Your task to perform on an android device: Clear the cart on ebay.com. Search for dell alienware on ebay.com, select the first entry, add it to the cart, then select checkout. Image 0: 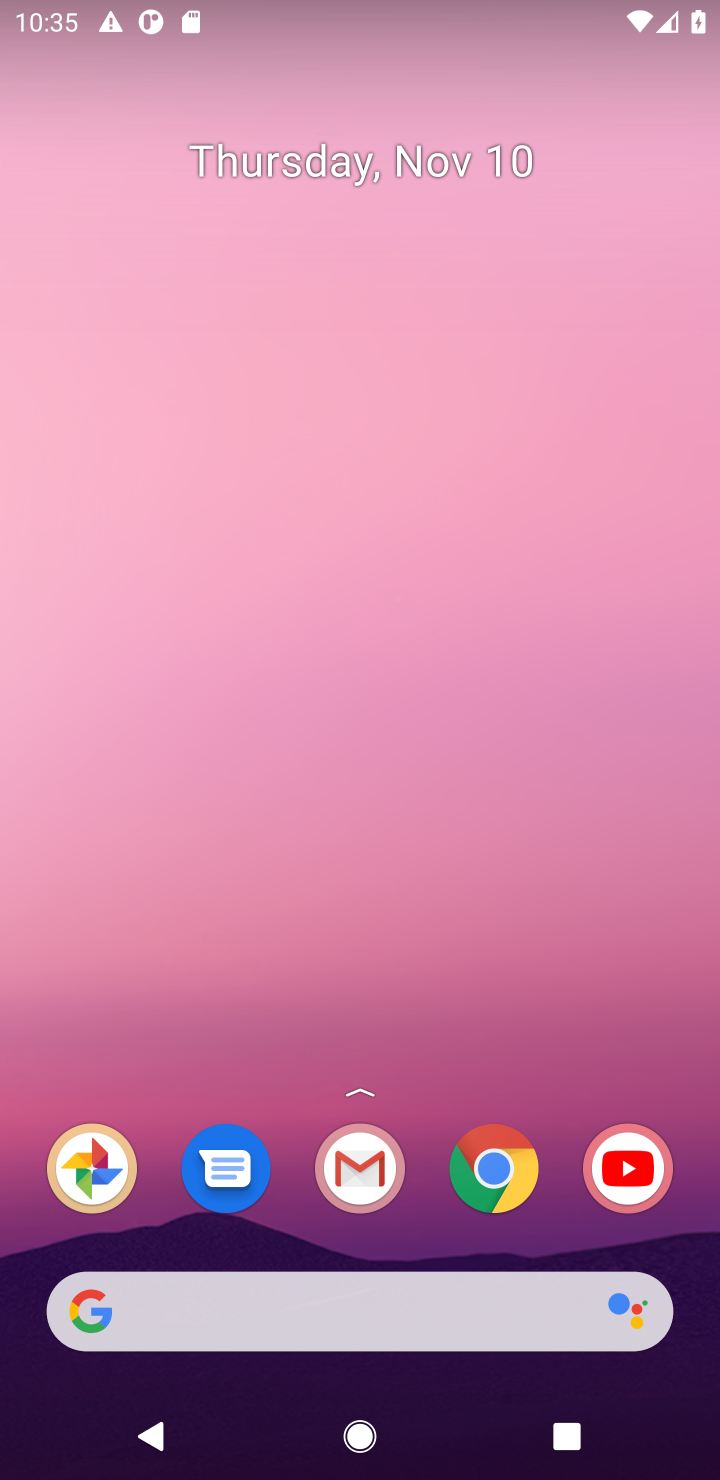
Step 0: click (492, 1190)
Your task to perform on an android device: Clear the cart on ebay.com. Search for dell alienware on ebay.com, select the first entry, add it to the cart, then select checkout. Image 1: 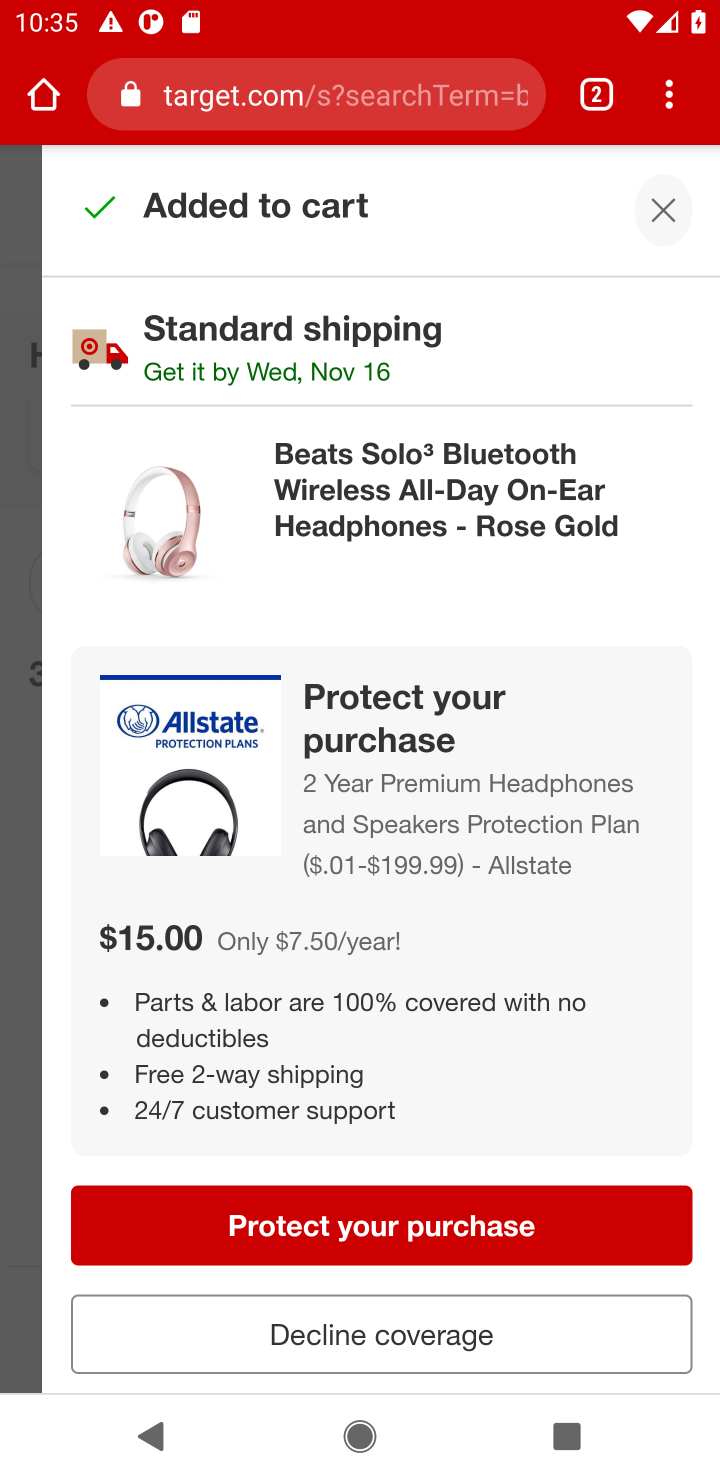
Step 1: click (286, 100)
Your task to perform on an android device: Clear the cart on ebay.com. Search for dell alienware on ebay.com, select the first entry, add it to the cart, then select checkout. Image 2: 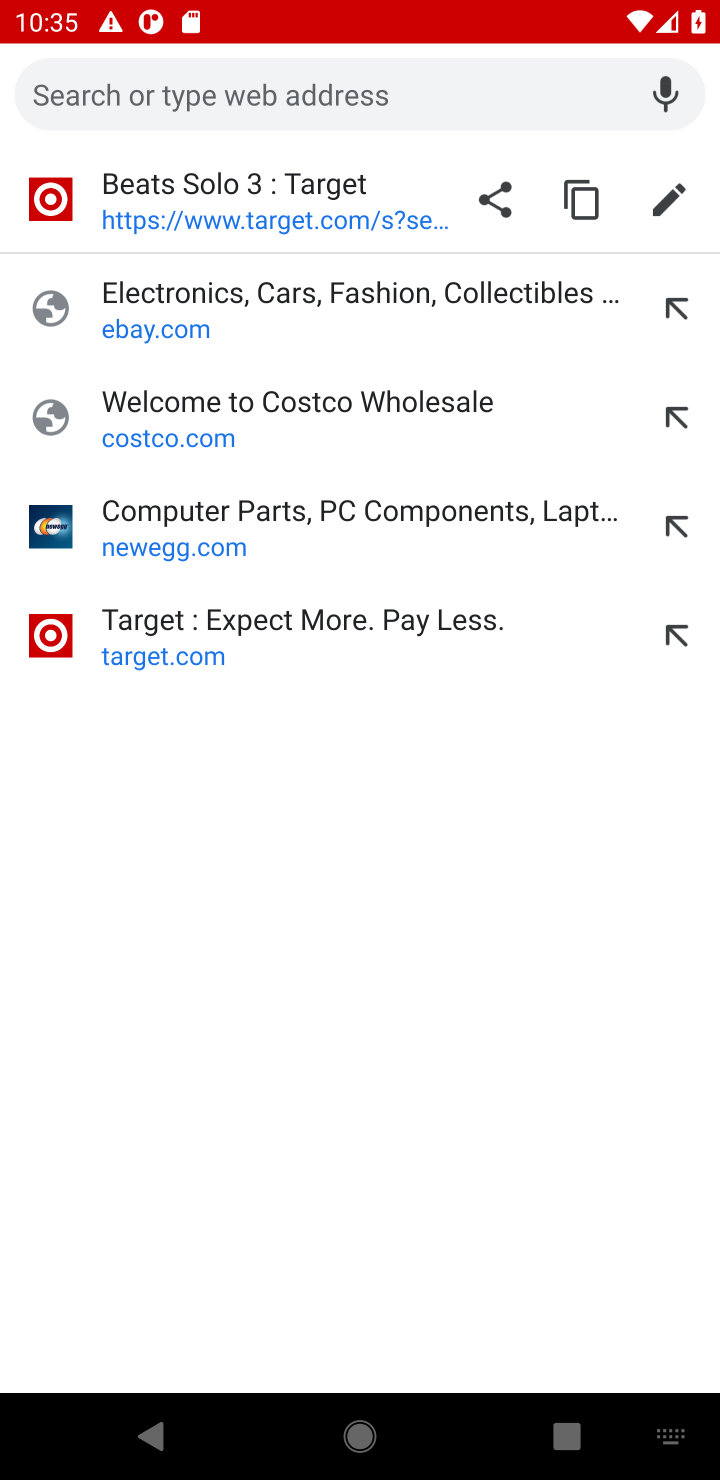
Step 2: click (178, 316)
Your task to perform on an android device: Clear the cart on ebay.com. Search for dell alienware on ebay.com, select the first entry, add it to the cart, then select checkout. Image 3: 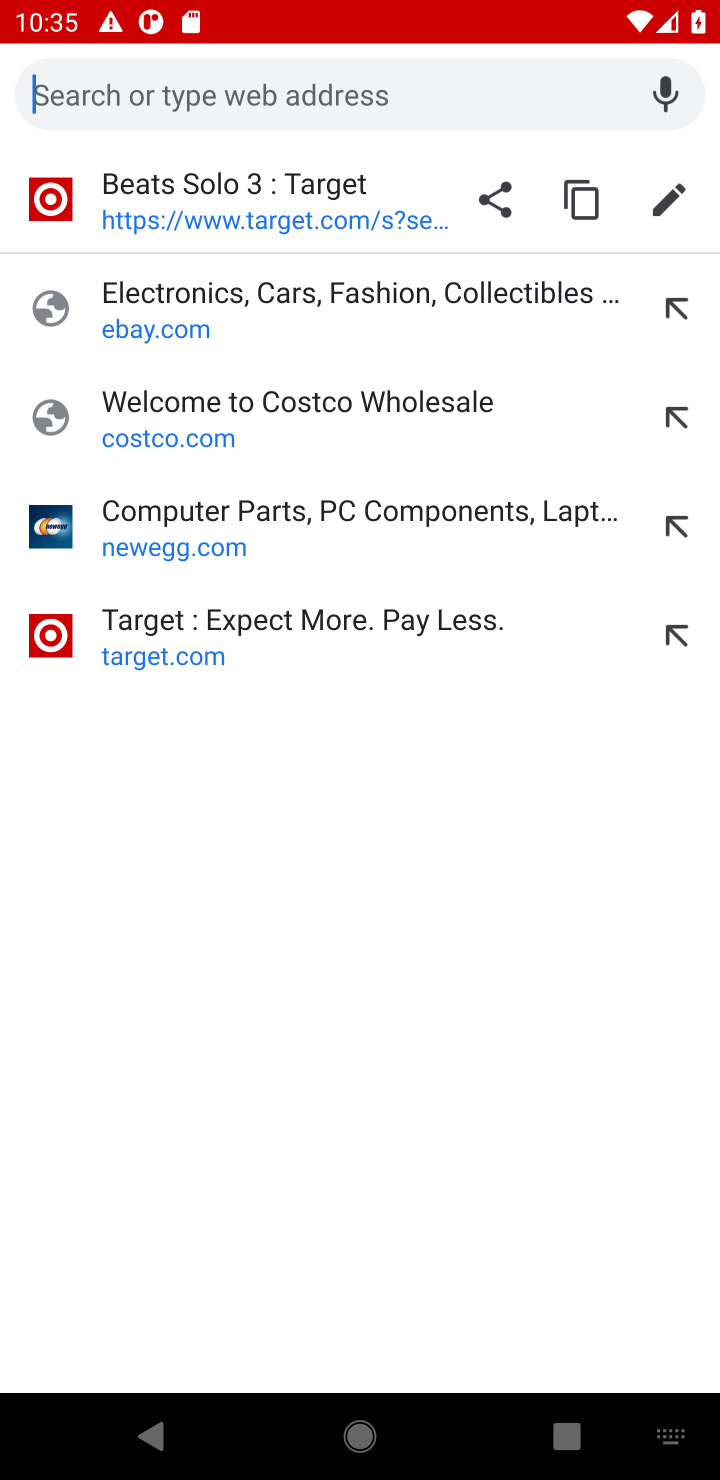
Step 3: click (128, 314)
Your task to perform on an android device: Clear the cart on ebay.com. Search for dell alienware on ebay.com, select the first entry, add it to the cart, then select checkout. Image 4: 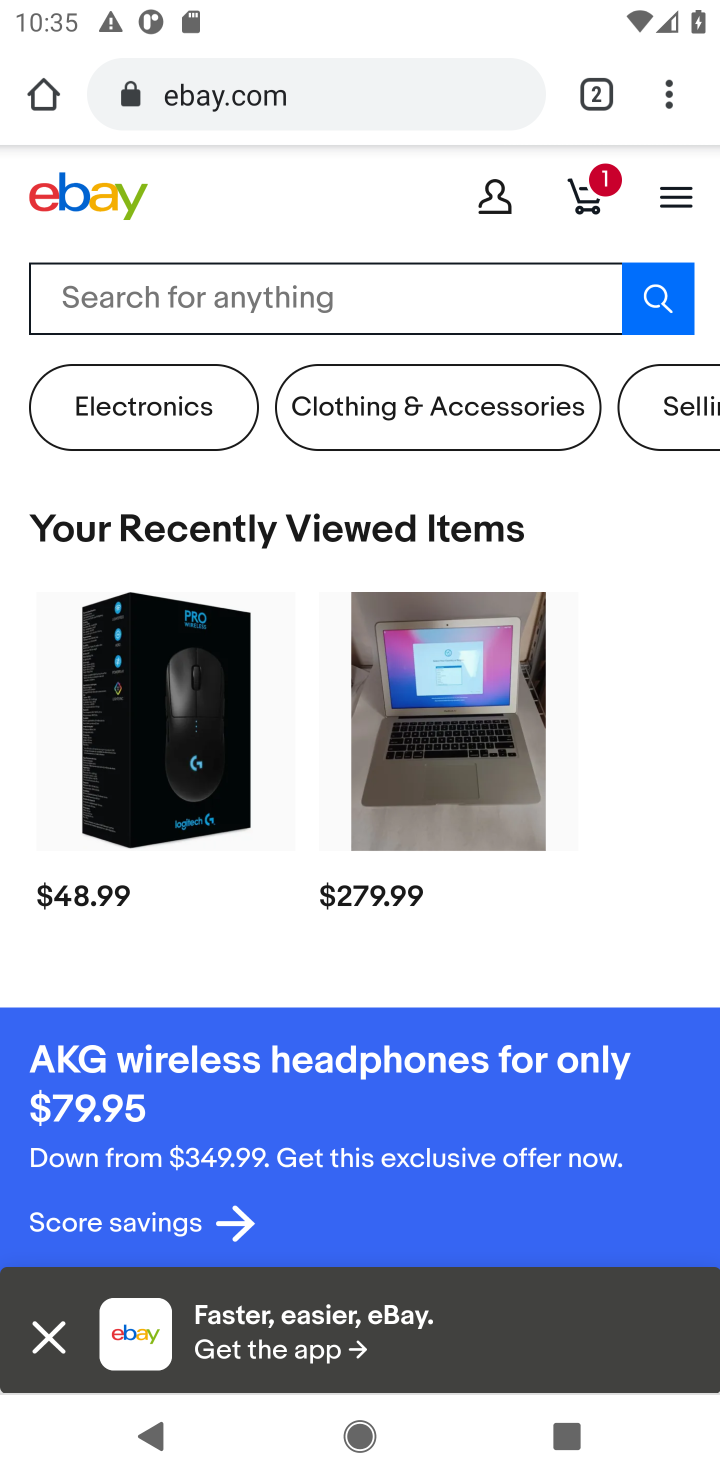
Step 4: click (584, 192)
Your task to perform on an android device: Clear the cart on ebay.com. Search for dell alienware on ebay.com, select the first entry, add it to the cart, then select checkout. Image 5: 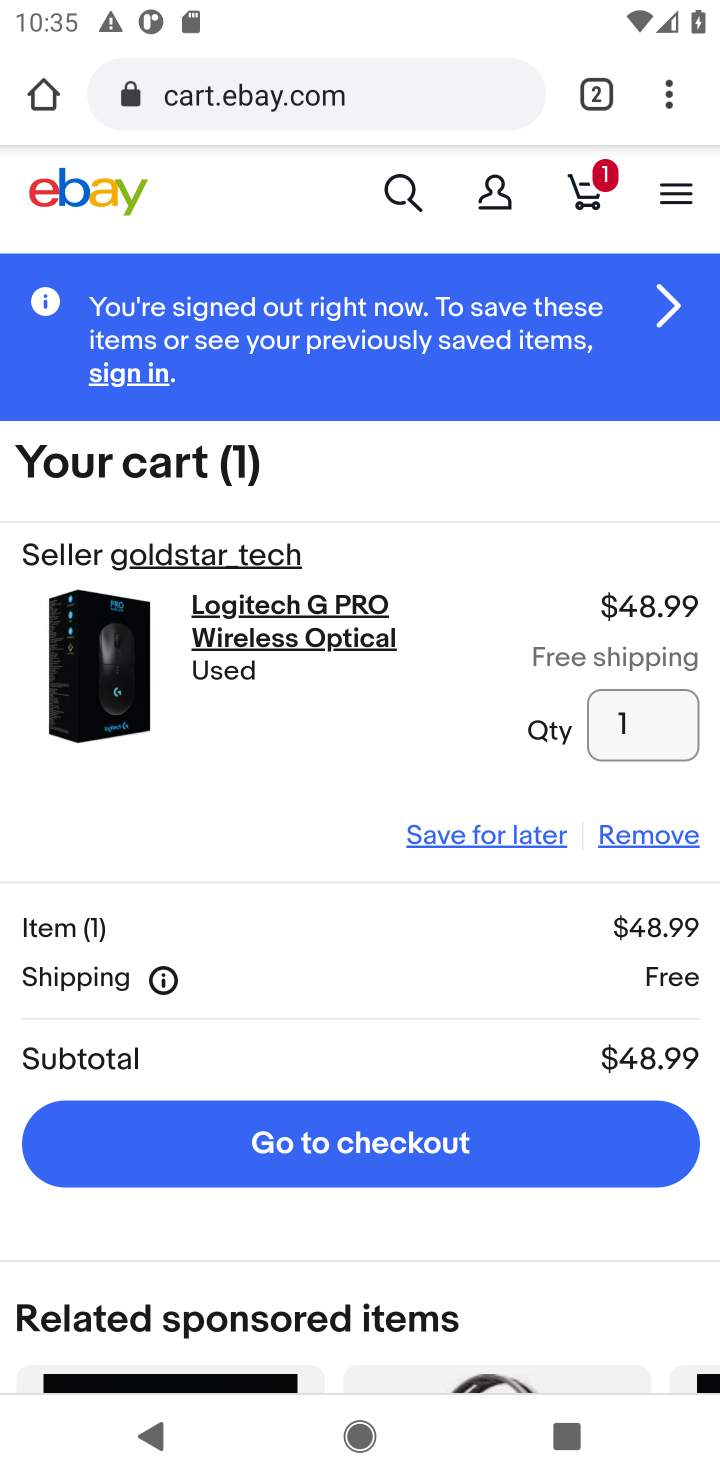
Step 5: click (645, 830)
Your task to perform on an android device: Clear the cart on ebay.com. Search for dell alienware on ebay.com, select the first entry, add it to the cart, then select checkout. Image 6: 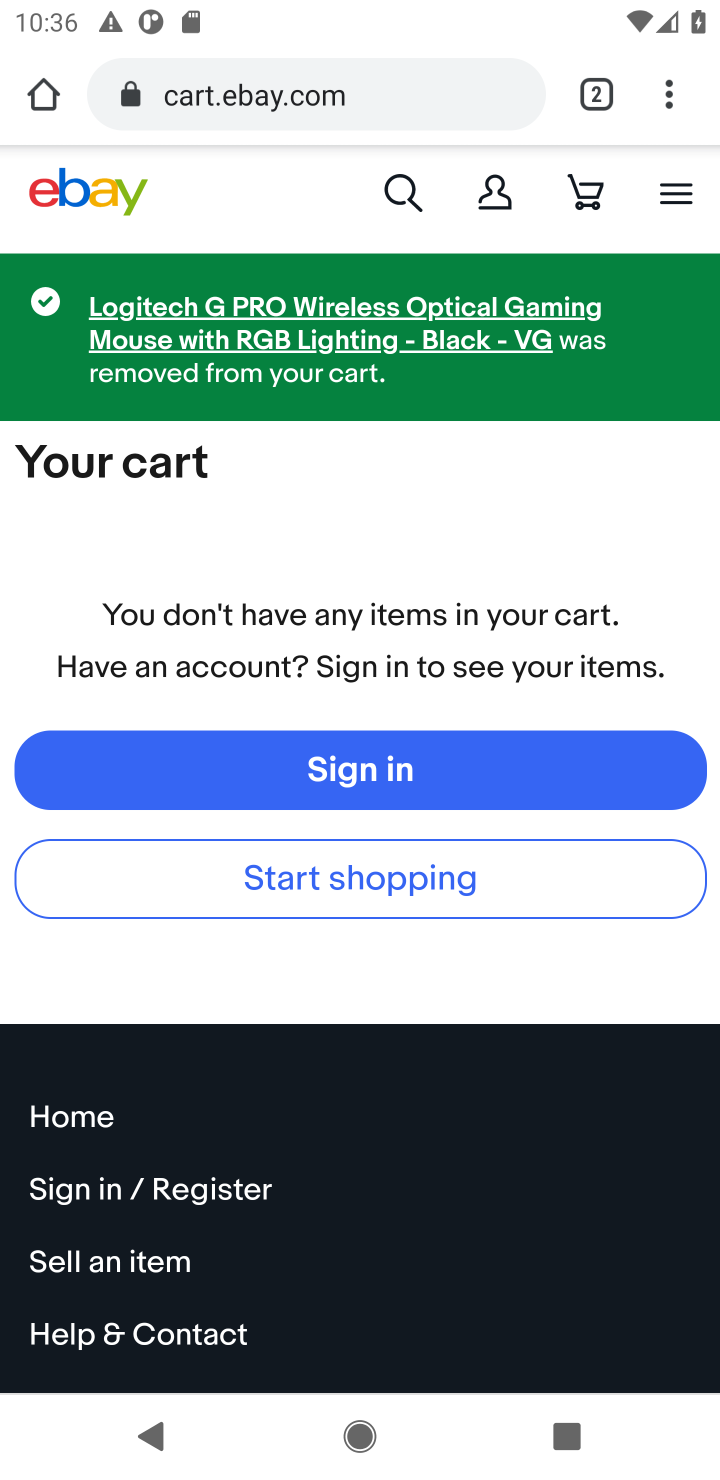
Step 6: click (385, 201)
Your task to perform on an android device: Clear the cart on ebay.com. Search for dell alienware on ebay.com, select the first entry, add it to the cart, then select checkout. Image 7: 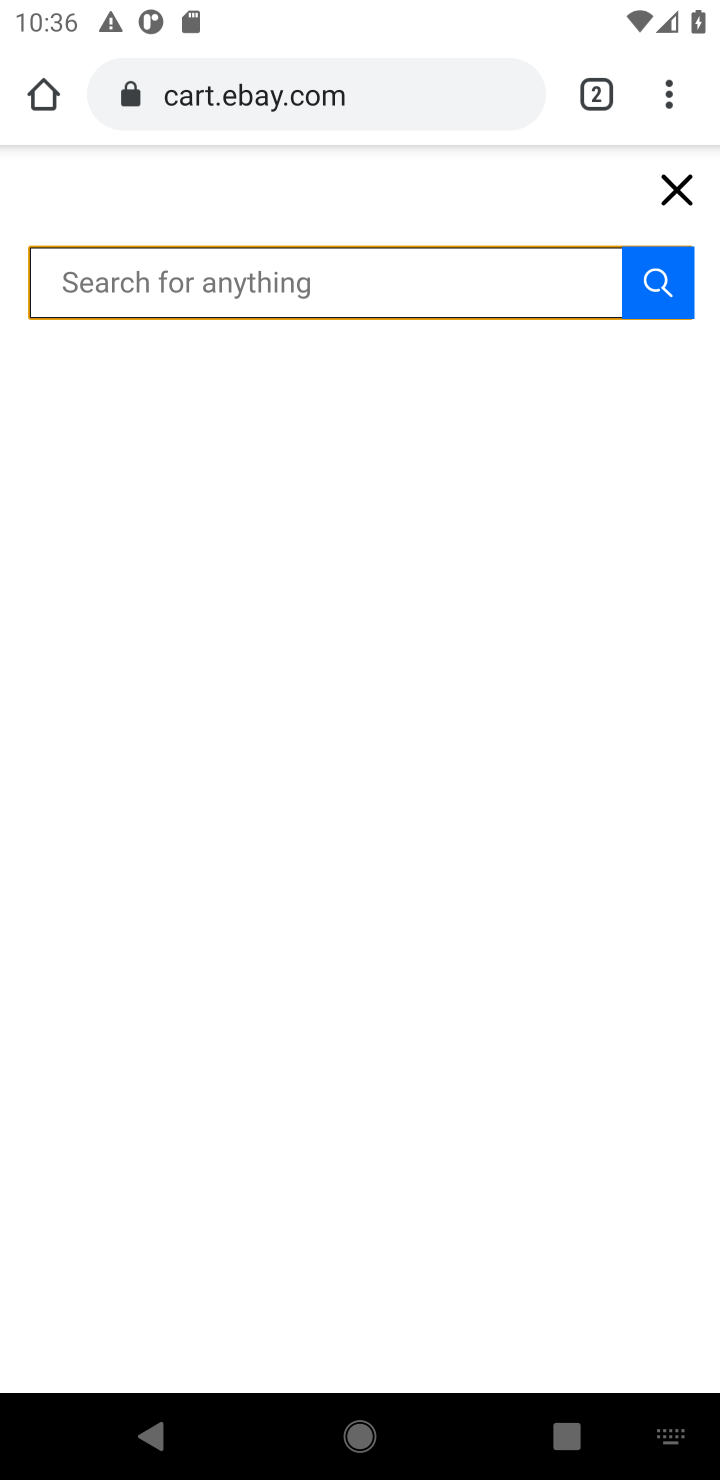
Step 7: type "dell alienware"
Your task to perform on an android device: Clear the cart on ebay.com. Search for dell alienware on ebay.com, select the first entry, add it to the cart, then select checkout. Image 8: 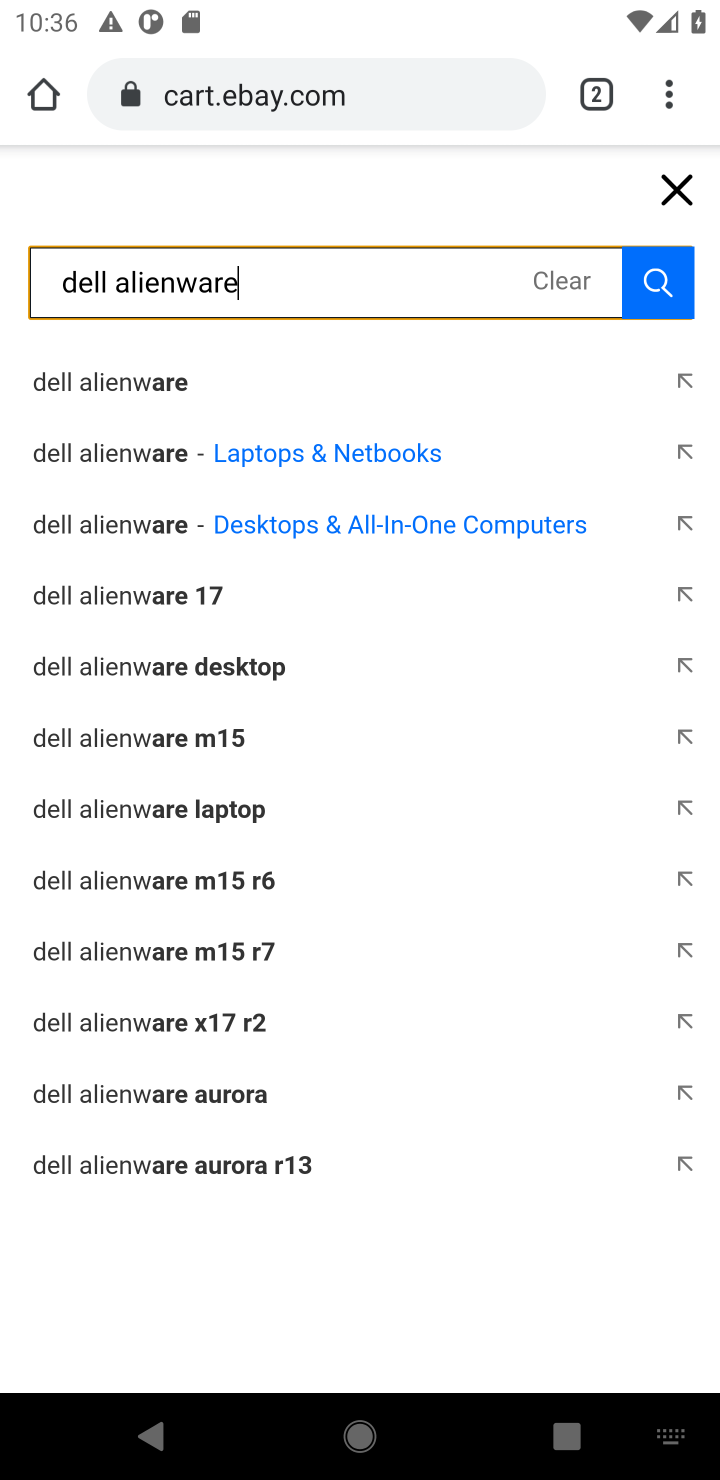
Step 8: click (146, 377)
Your task to perform on an android device: Clear the cart on ebay.com. Search for dell alienware on ebay.com, select the first entry, add it to the cart, then select checkout. Image 9: 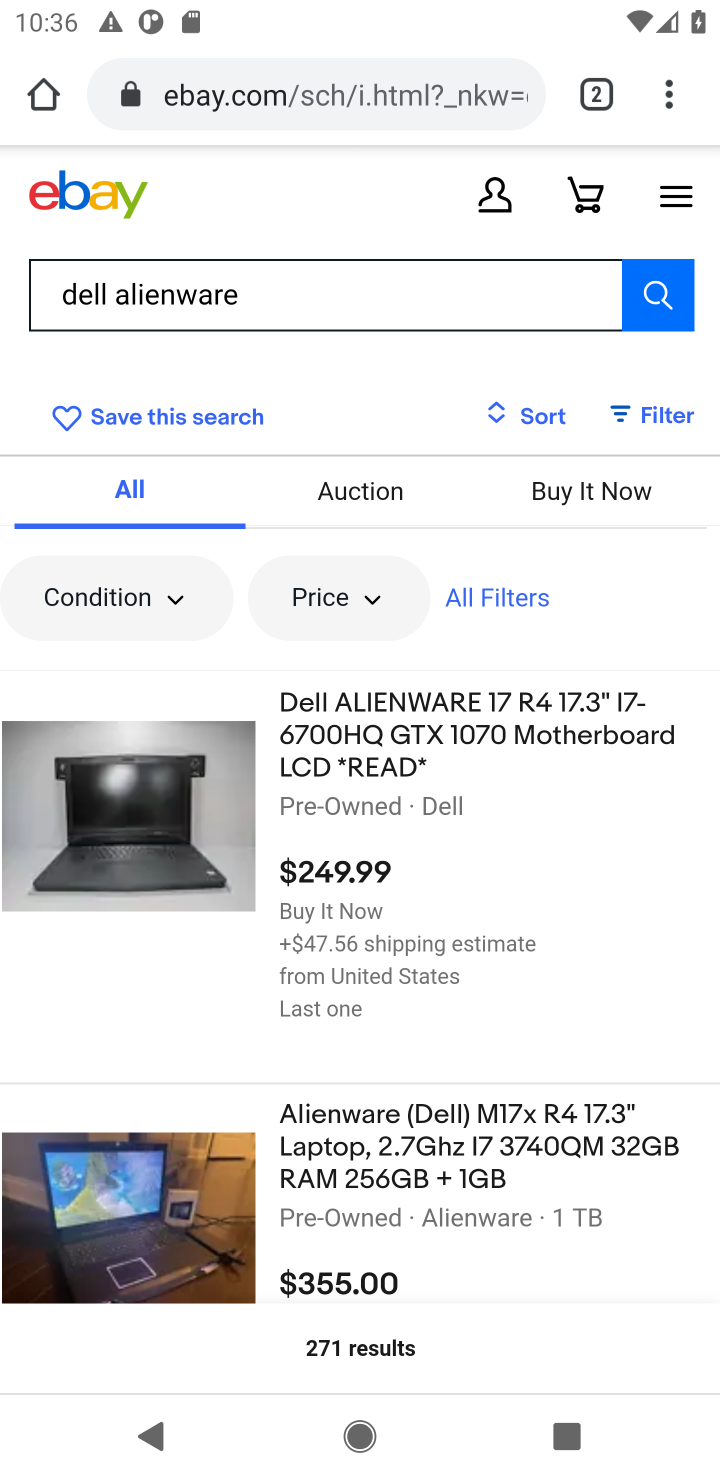
Step 9: click (163, 822)
Your task to perform on an android device: Clear the cart on ebay.com. Search for dell alienware on ebay.com, select the first entry, add it to the cart, then select checkout. Image 10: 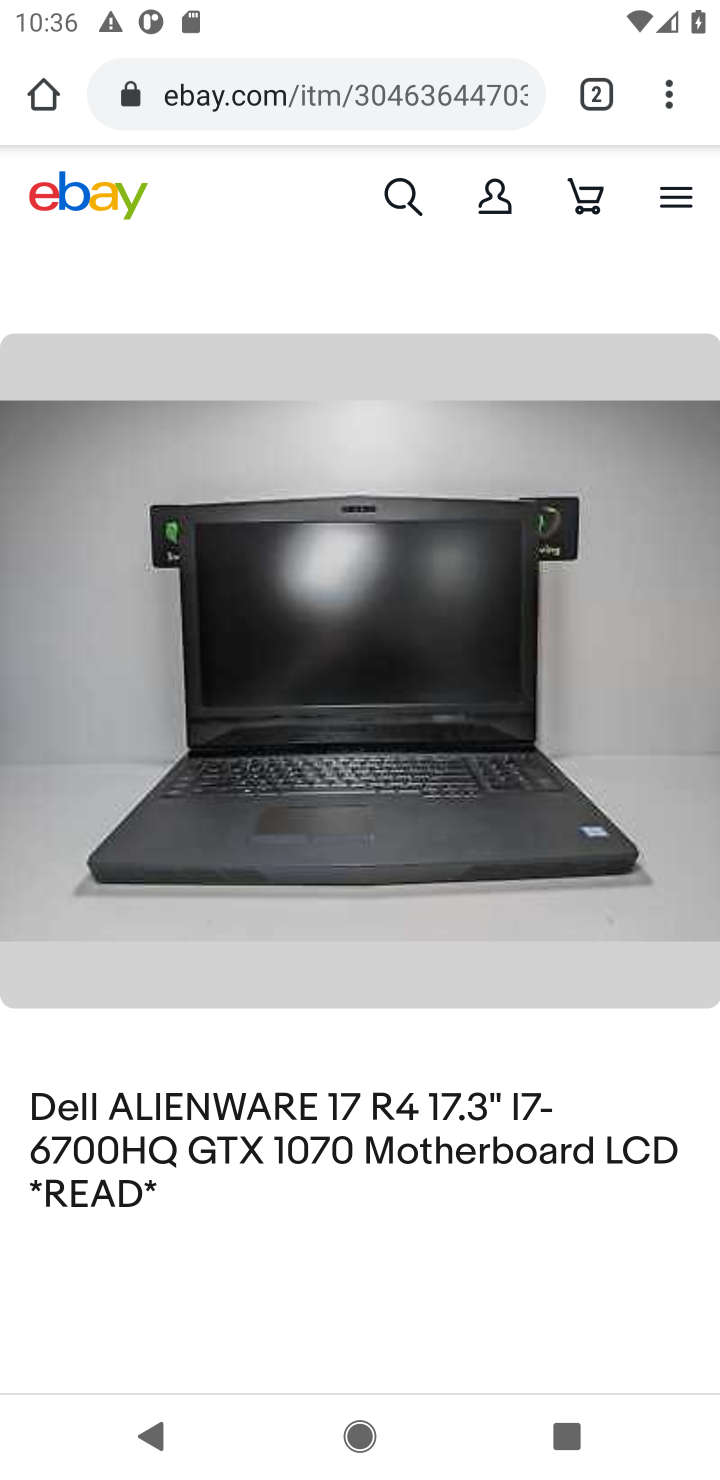
Step 10: drag from (349, 1154) to (371, 466)
Your task to perform on an android device: Clear the cart on ebay.com. Search for dell alienware on ebay.com, select the first entry, add it to the cart, then select checkout. Image 11: 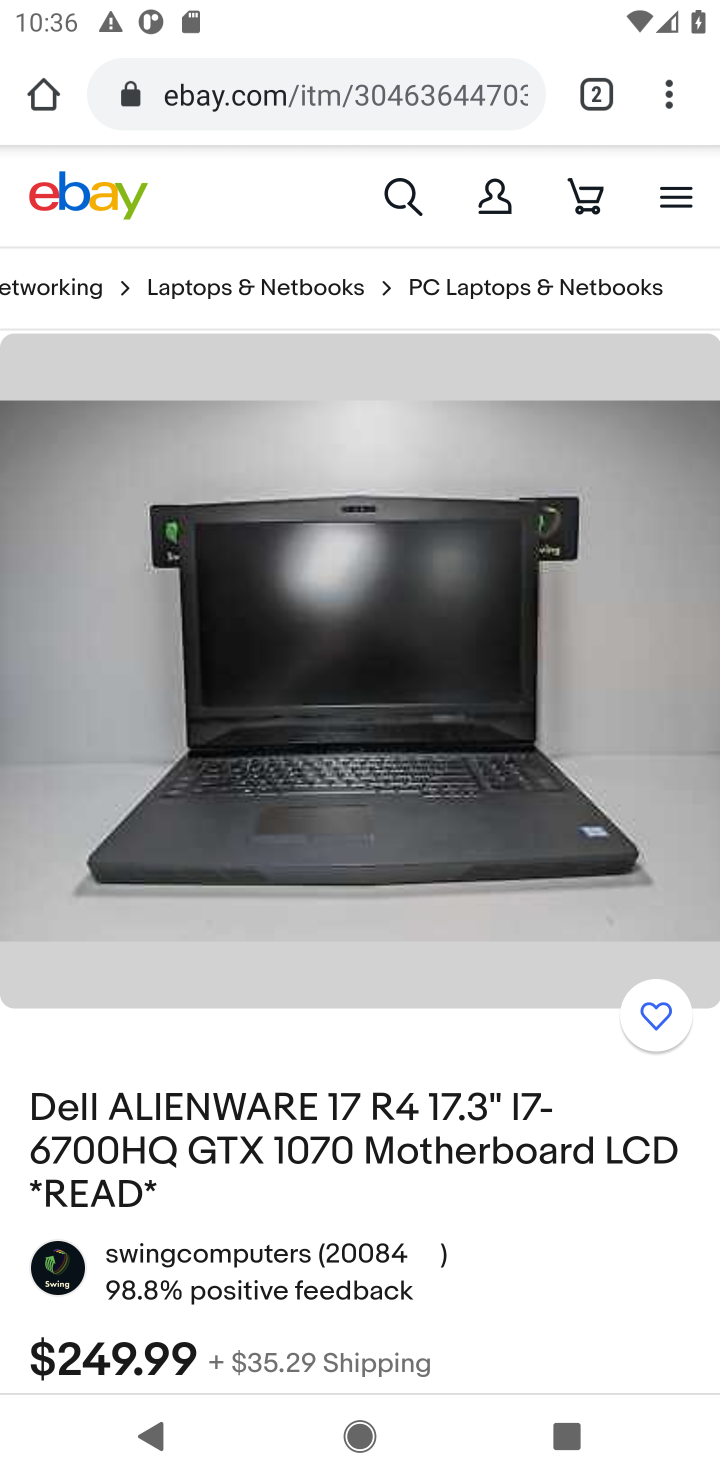
Step 11: drag from (340, 904) to (371, 450)
Your task to perform on an android device: Clear the cart on ebay.com. Search for dell alienware on ebay.com, select the first entry, add it to the cart, then select checkout. Image 12: 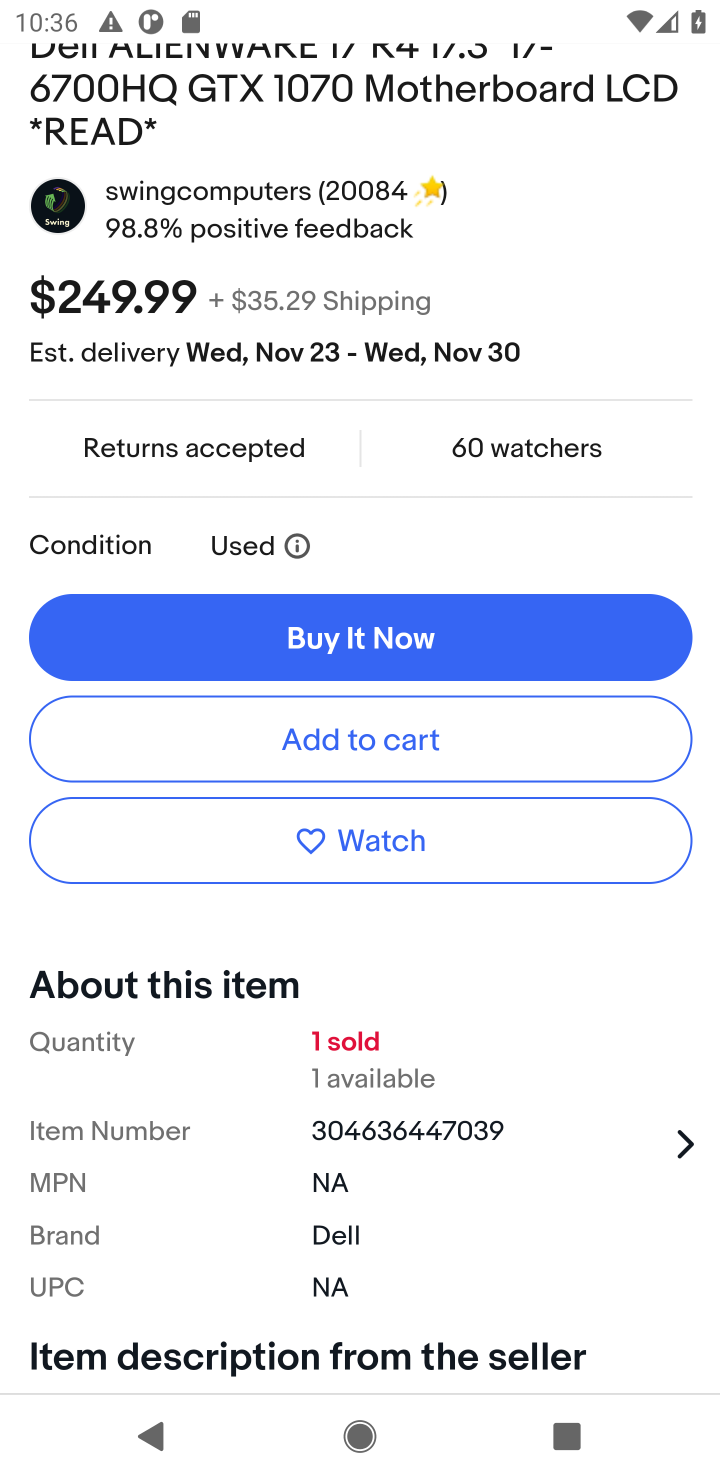
Step 12: click (345, 742)
Your task to perform on an android device: Clear the cart on ebay.com. Search for dell alienware on ebay.com, select the first entry, add it to the cart, then select checkout. Image 13: 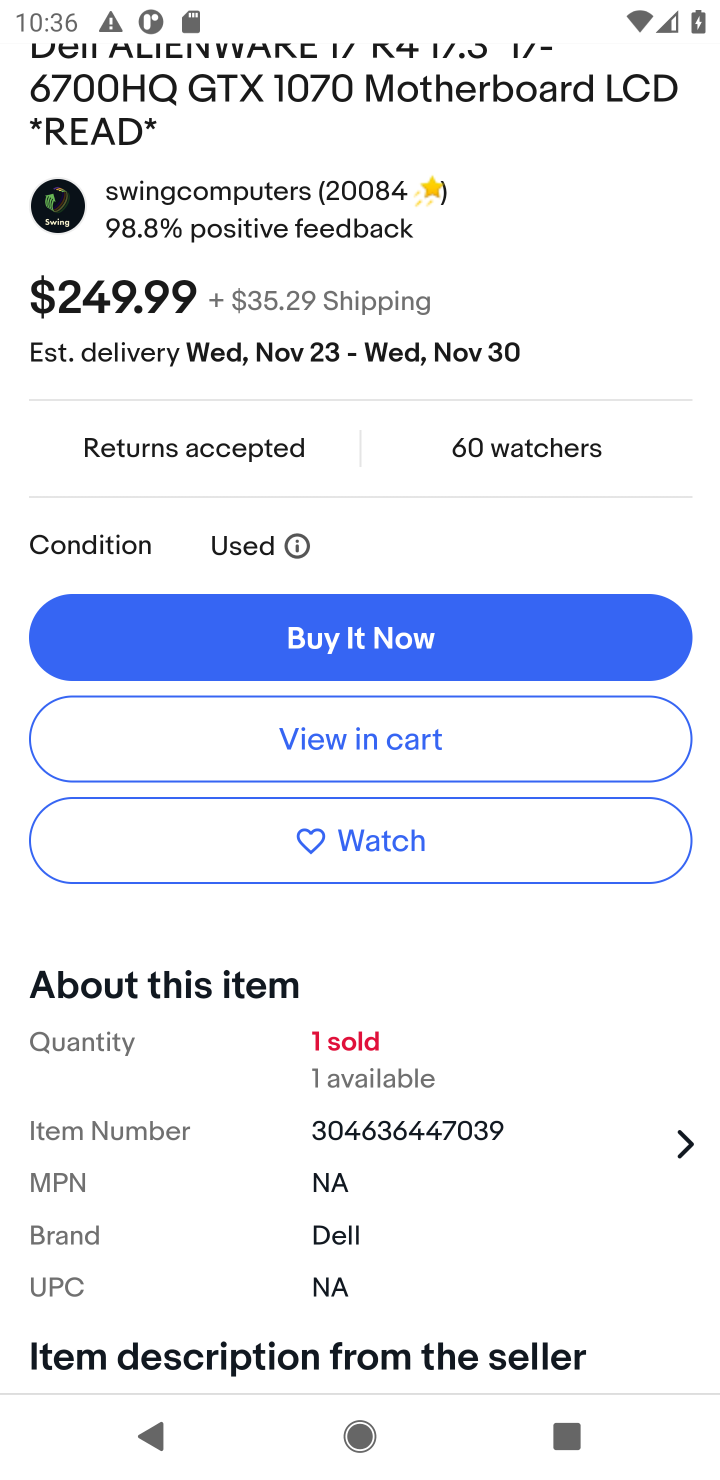
Step 13: click (345, 742)
Your task to perform on an android device: Clear the cart on ebay.com. Search for dell alienware on ebay.com, select the first entry, add it to the cart, then select checkout. Image 14: 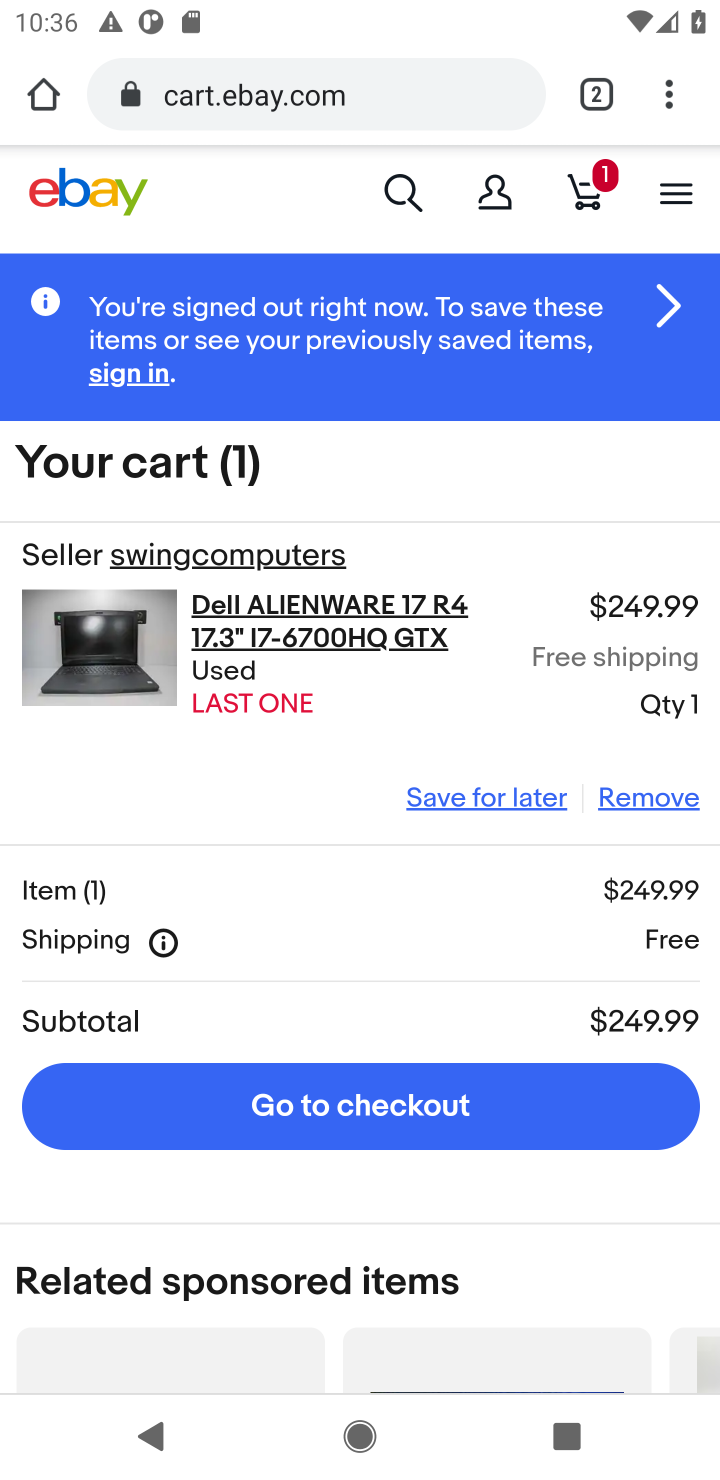
Step 14: click (340, 1100)
Your task to perform on an android device: Clear the cart on ebay.com. Search for dell alienware on ebay.com, select the first entry, add it to the cart, then select checkout. Image 15: 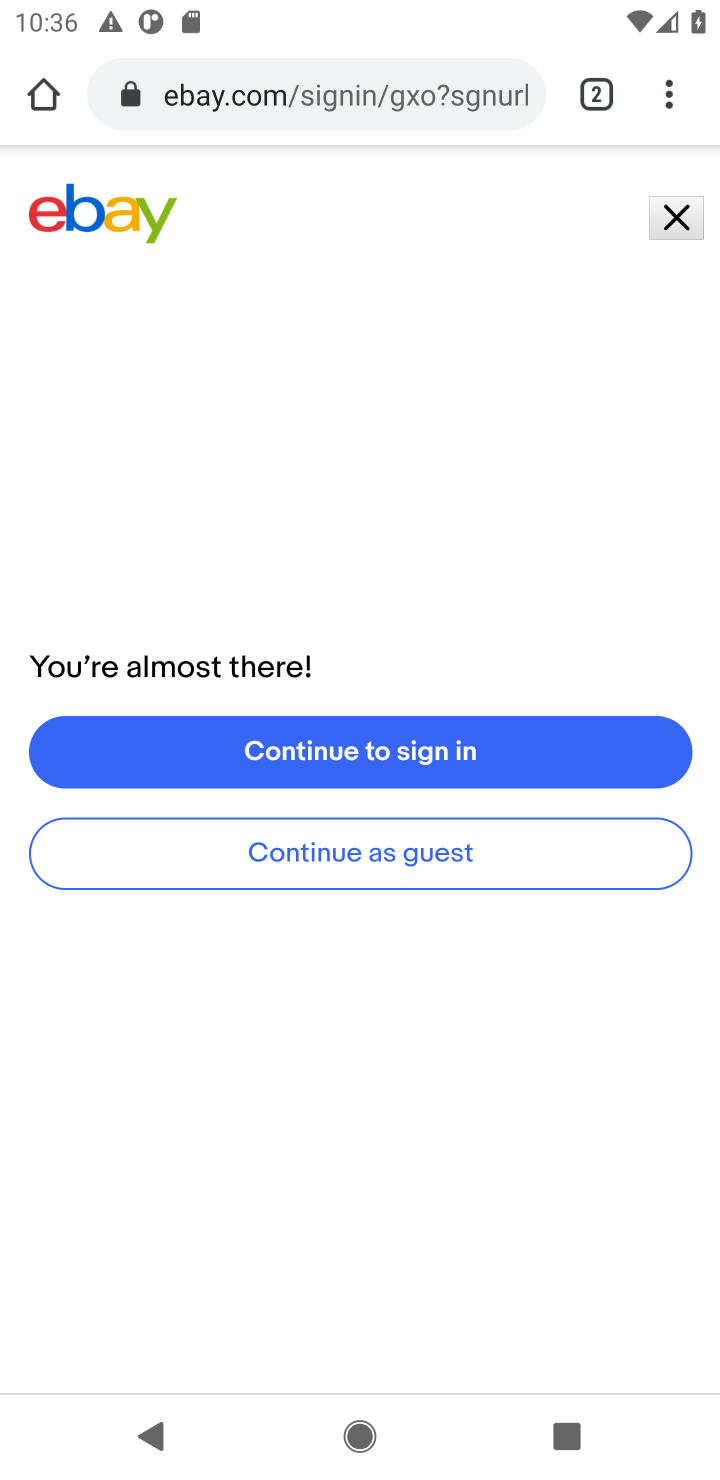
Step 15: task complete